Your task to perform on an android device: toggle airplane mode Image 0: 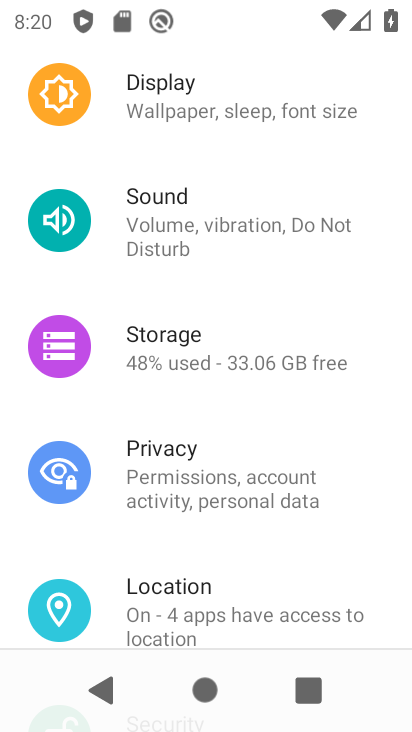
Step 0: drag from (254, 167) to (261, 555)
Your task to perform on an android device: toggle airplane mode Image 1: 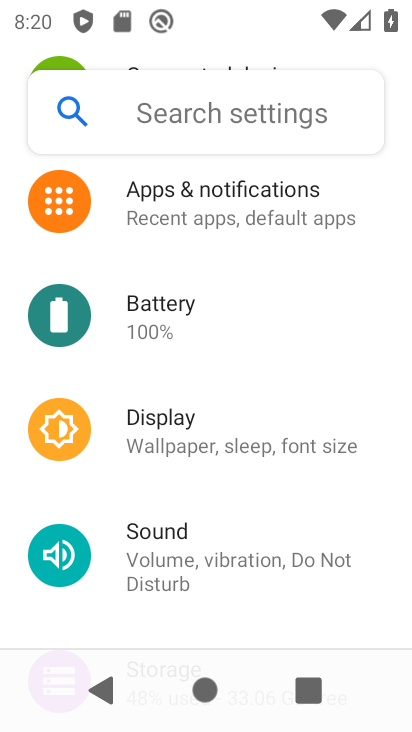
Step 1: drag from (254, 176) to (241, 629)
Your task to perform on an android device: toggle airplane mode Image 2: 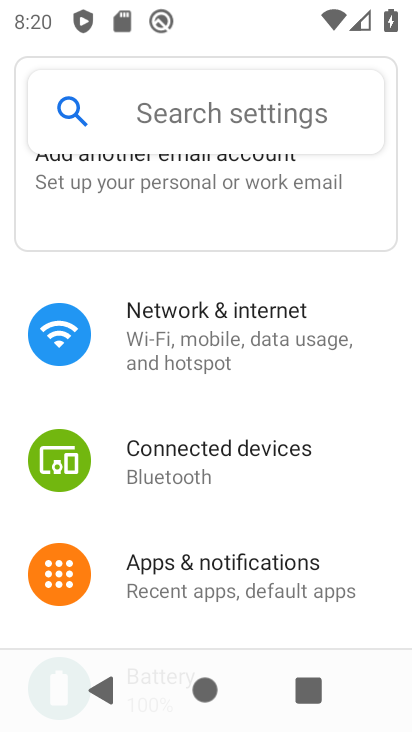
Step 2: click (212, 343)
Your task to perform on an android device: toggle airplane mode Image 3: 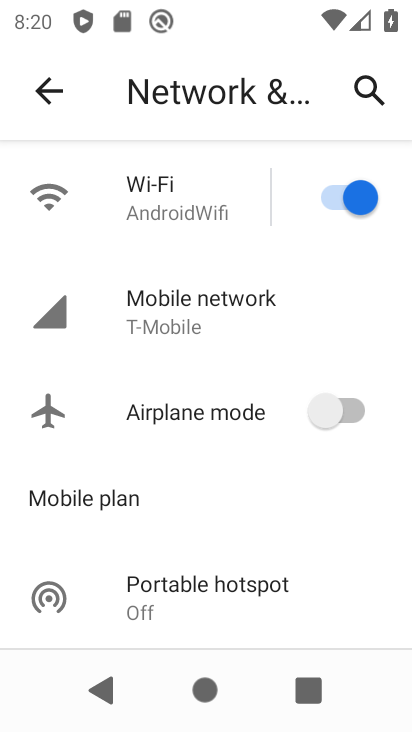
Step 3: click (335, 412)
Your task to perform on an android device: toggle airplane mode Image 4: 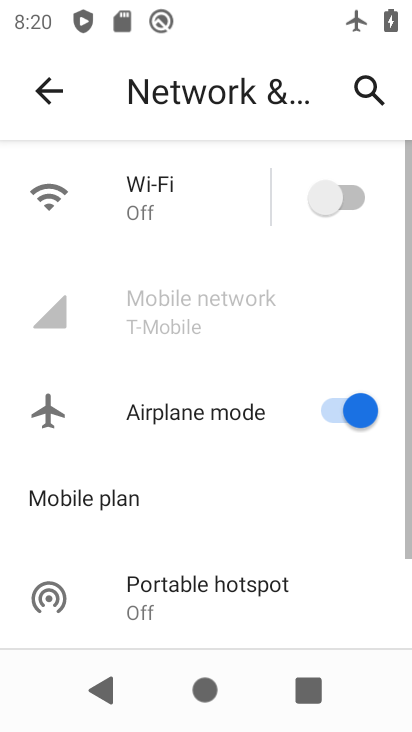
Step 4: task complete